Your task to perform on an android device: turn off smart reply in the gmail app Image 0: 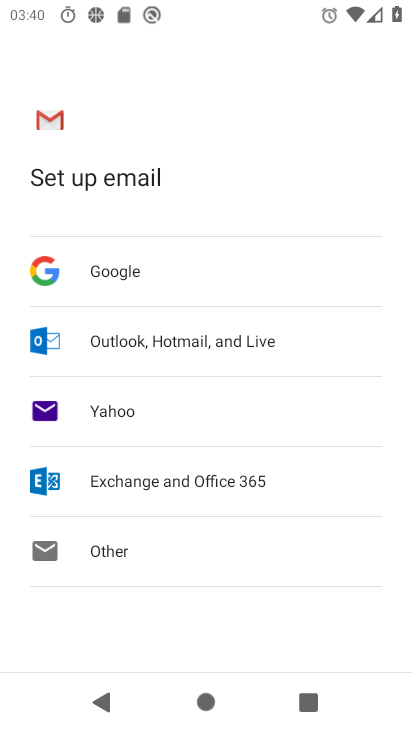
Step 0: press back button
Your task to perform on an android device: turn off smart reply in the gmail app Image 1: 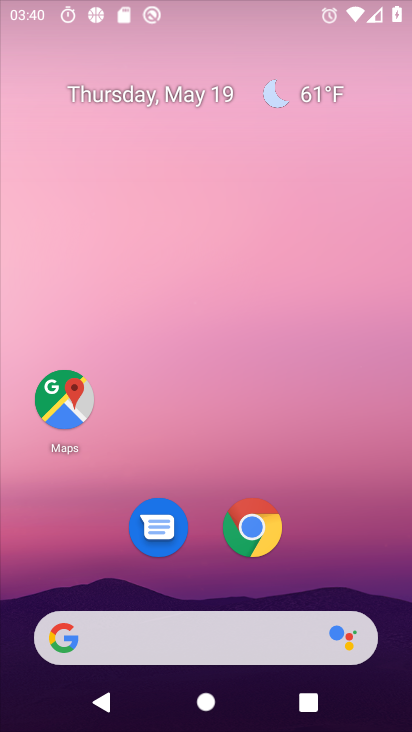
Step 1: drag from (131, 505) to (288, 5)
Your task to perform on an android device: turn off smart reply in the gmail app Image 2: 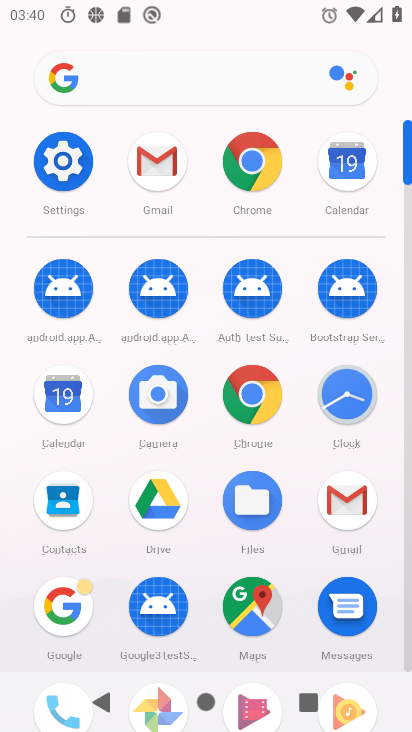
Step 2: click (69, 153)
Your task to perform on an android device: turn off smart reply in the gmail app Image 3: 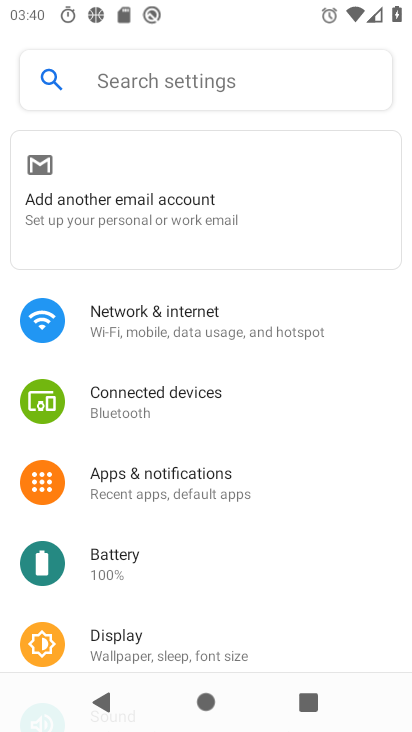
Step 3: press back button
Your task to perform on an android device: turn off smart reply in the gmail app Image 4: 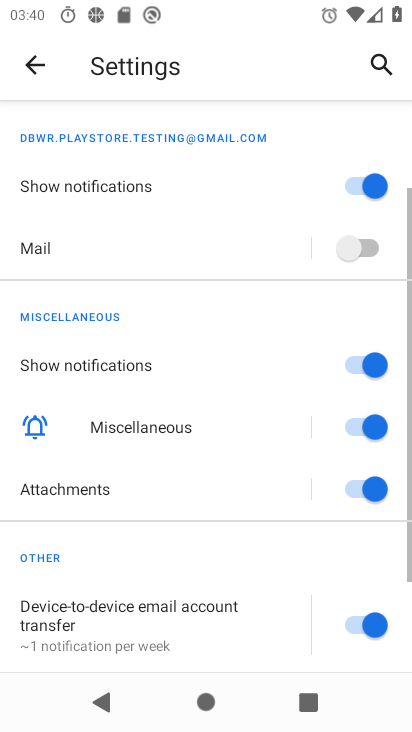
Step 4: press back button
Your task to perform on an android device: turn off smart reply in the gmail app Image 5: 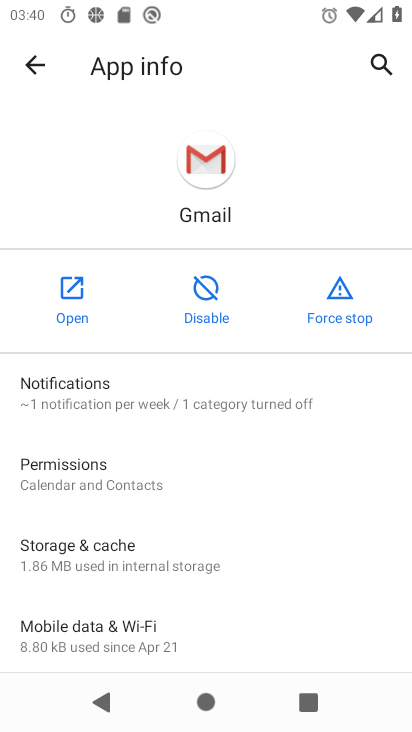
Step 5: press back button
Your task to perform on an android device: turn off smart reply in the gmail app Image 6: 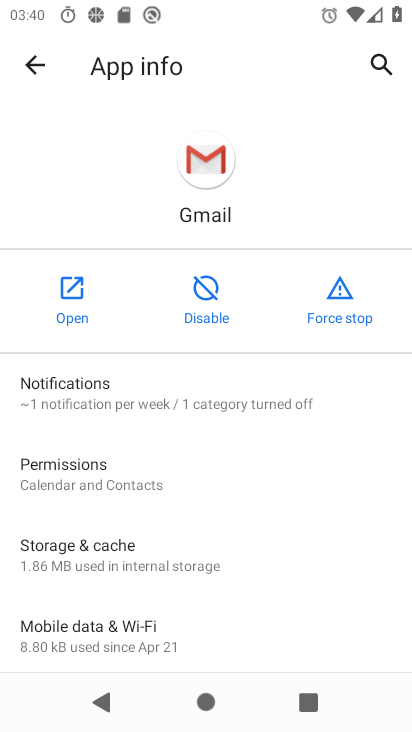
Step 6: press back button
Your task to perform on an android device: turn off smart reply in the gmail app Image 7: 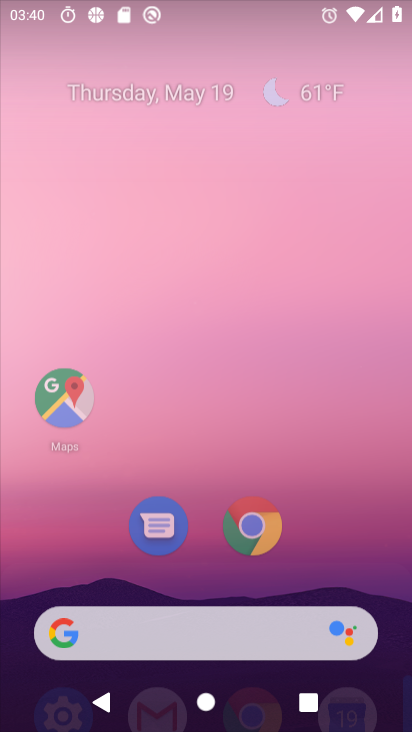
Step 7: press back button
Your task to perform on an android device: turn off smart reply in the gmail app Image 8: 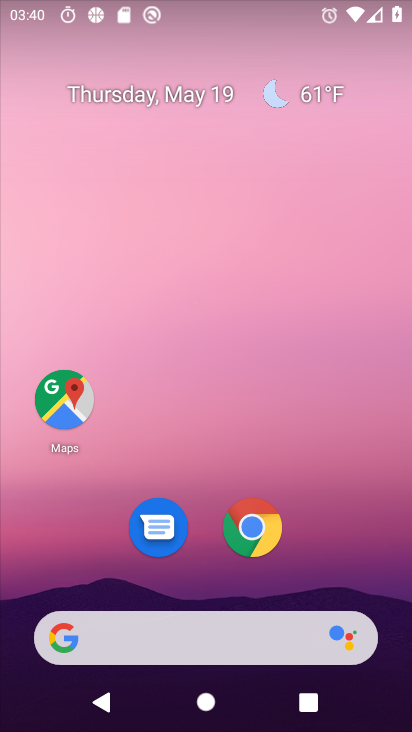
Step 8: drag from (123, 617) to (221, 103)
Your task to perform on an android device: turn off smart reply in the gmail app Image 9: 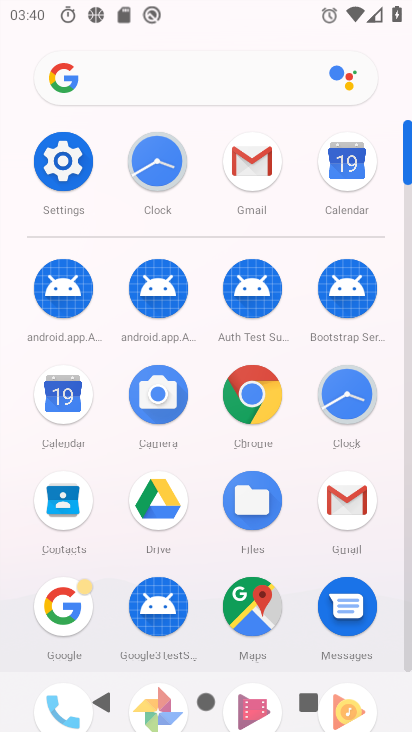
Step 9: click (251, 152)
Your task to perform on an android device: turn off smart reply in the gmail app Image 10: 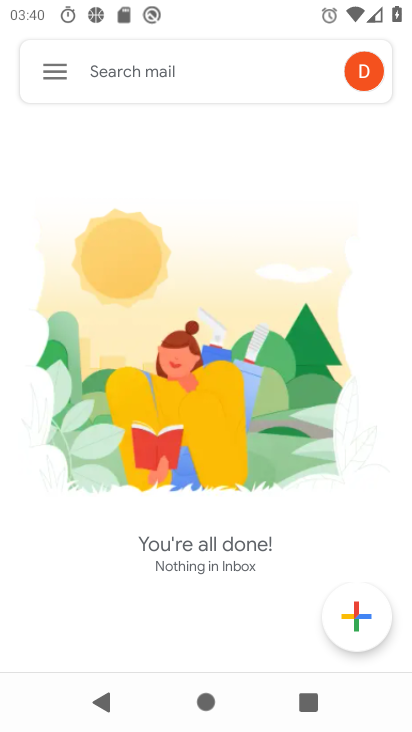
Step 10: click (31, 71)
Your task to perform on an android device: turn off smart reply in the gmail app Image 11: 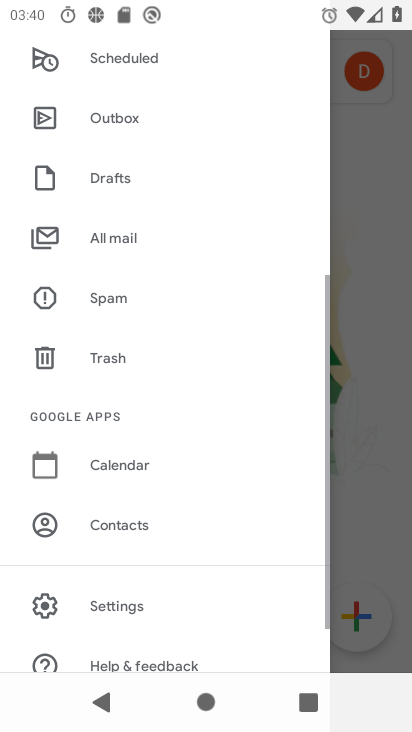
Step 11: click (120, 603)
Your task to perform on an android device: turn off smart reply in the gmail app Image 12: 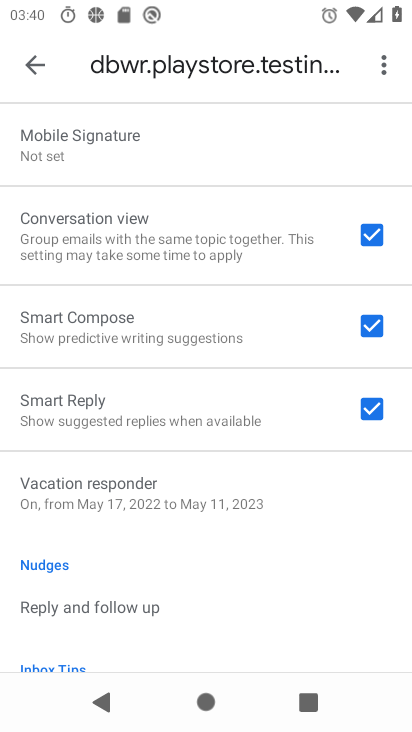
Step 12: click (377, 401)
Your task to perform on an android device: turn off smart reply in the gmail app Image 13: 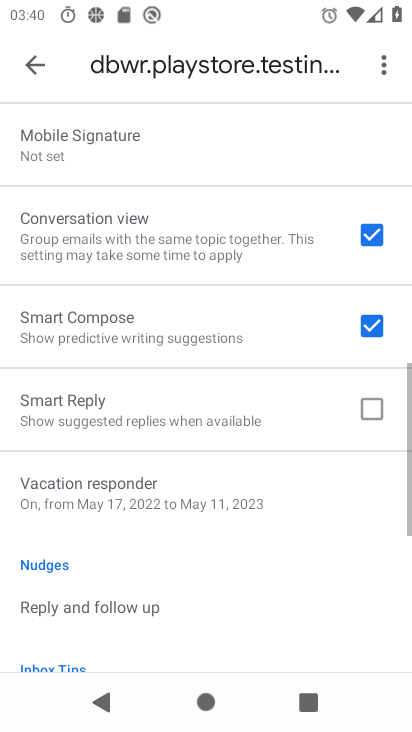
Step 13: task complete